Your task to perform on an android device: Empty the shopping cart on newegg.com. Add "logitech g910" to the cart on newegg.com Image 0: 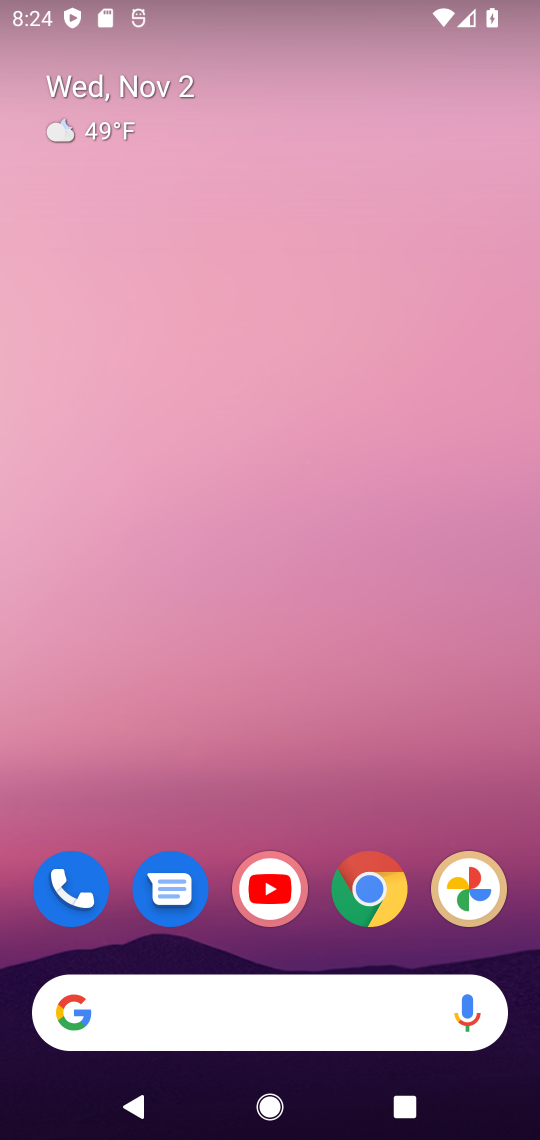
Step 0: press home button
Your task to perform on an android device: Empty the shopping cart on newegg.com. Add "logitech g910" to the cart on newegg.com Image 1: 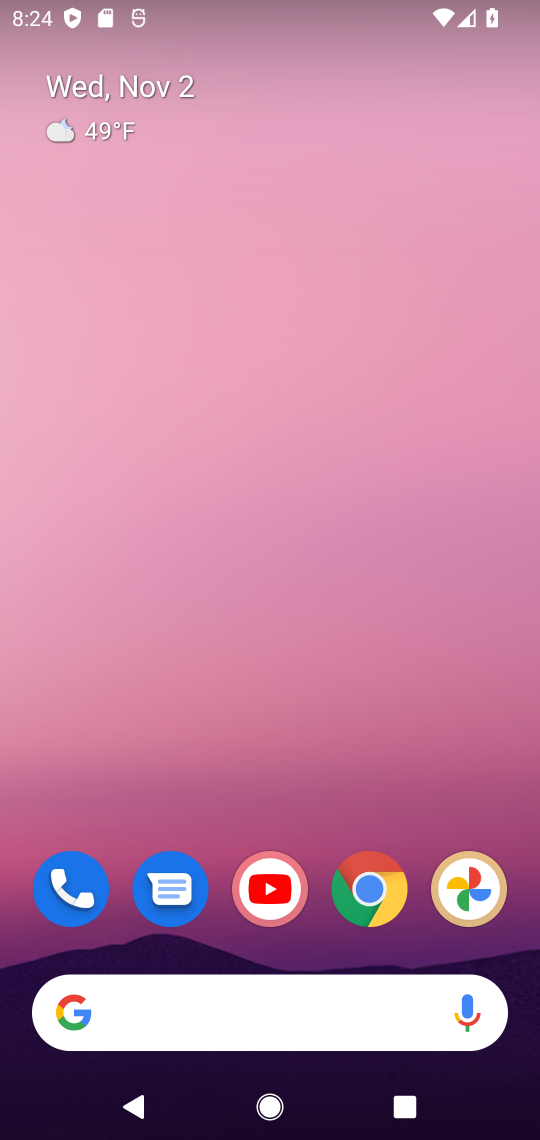
Step 1: drag from (336, 802) to (320, 11)
Your task to perform on an android device: Empty the shopping cart on newegg.com. Add "logitech g910" to the cart on newegg.com Image 2: 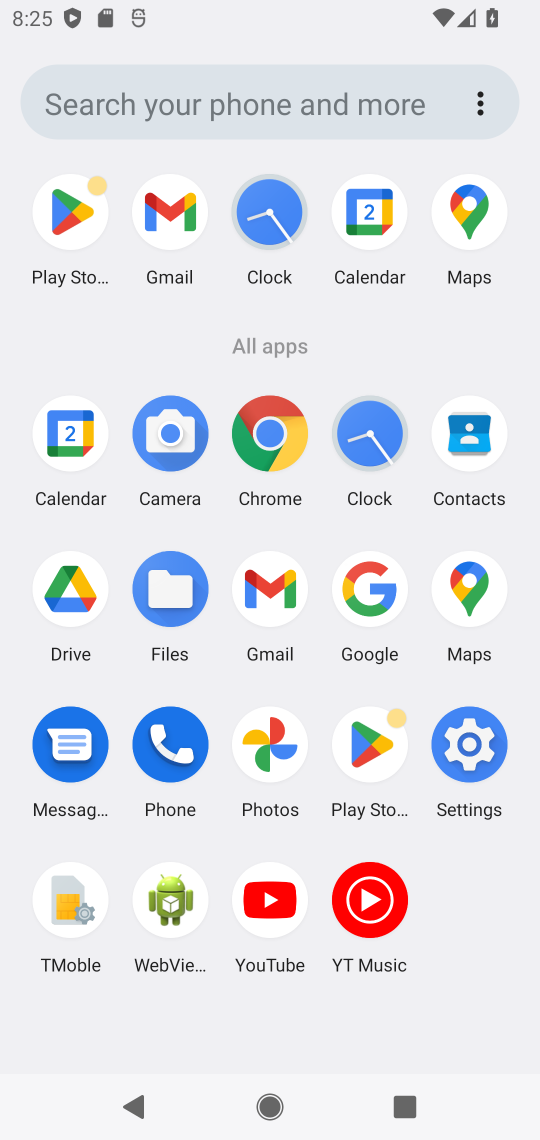
Step 2: click (273, 425)
Your task to perform on an android device: Empty the shopping cart on newegg.com. Add "logitech g910" to the cart on newegg.com Image 3: 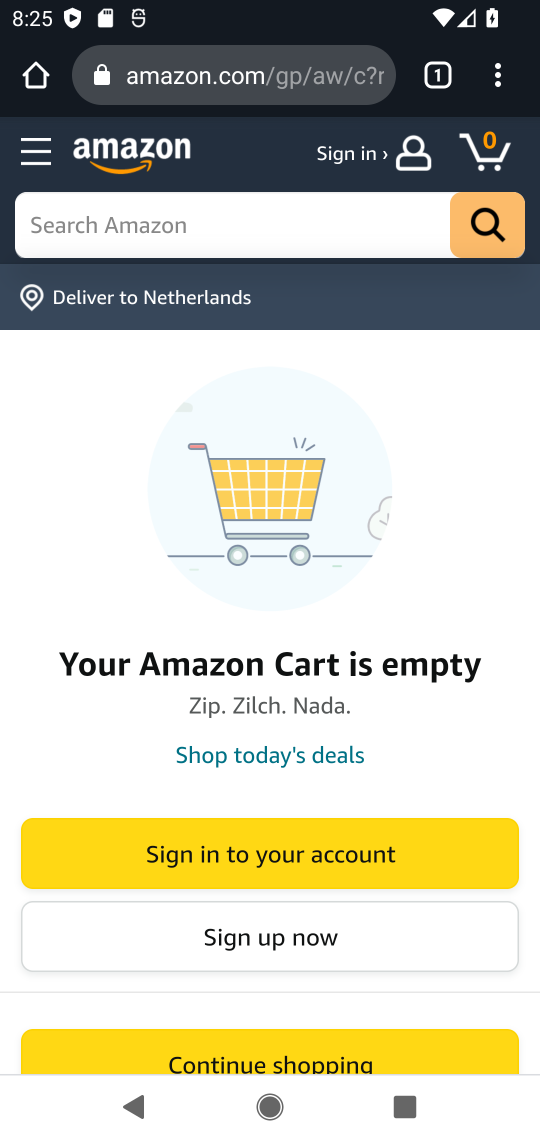
Step 3: click (230, 82)
Your task to perform on an android device: Empty the shopping cart on newegg.com. Add "logitech g910" to the cart on newegg.com Image 4: 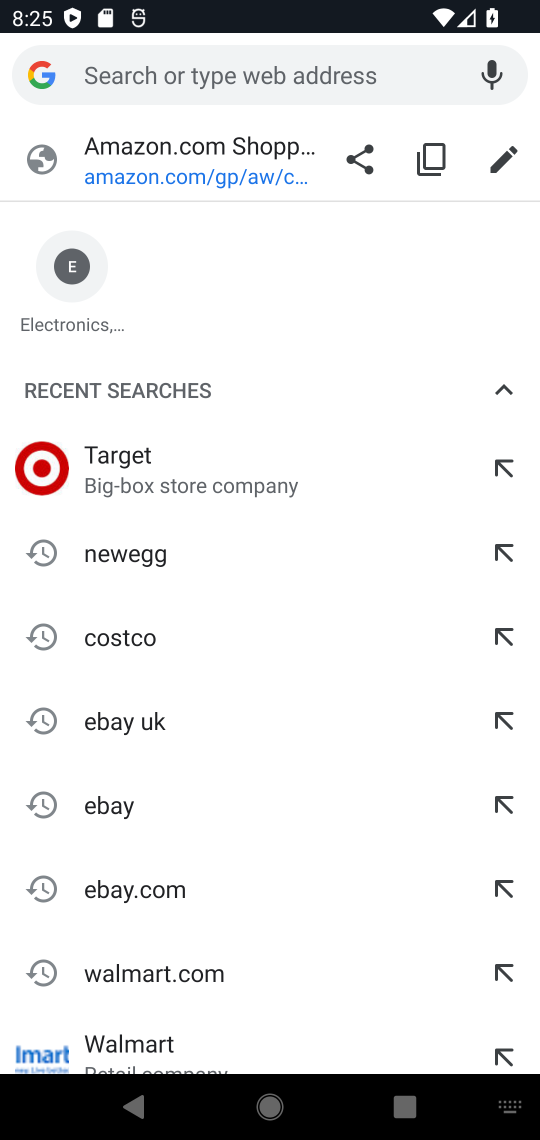
Step 4: type "newegg"
Your task to perform on an android device: Empty the shopping cart on newegg.com. Add "logitech g910" to the cart on newegg.com Image 5: 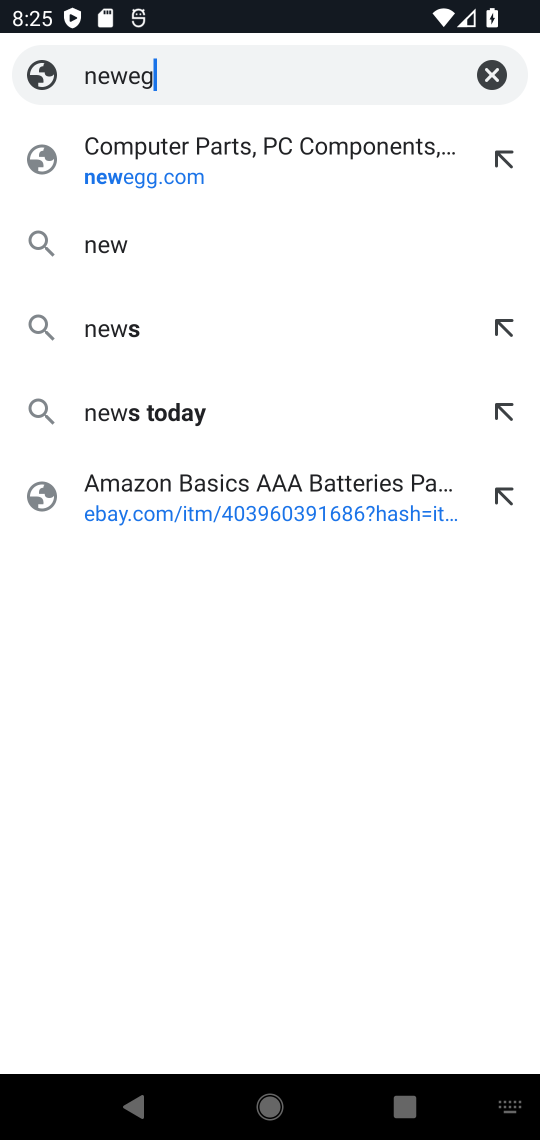
Step 5: type ""
Your task to perform on an android device: Empty the shopping cart on newegg.com. Add "logitech g910" to the cart on newegg.com Image 6: 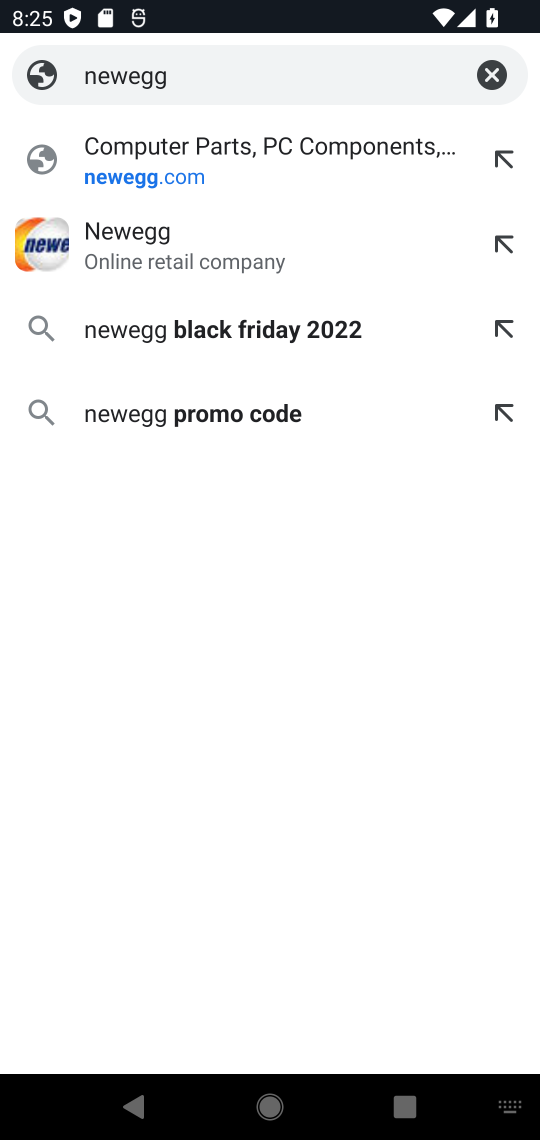
Step 6: click (193, 157)
Your task to perform on an android device: Empty the shopping cart on newegg.com. Add "logitech g910" to the cart on newegg.com Image 7: 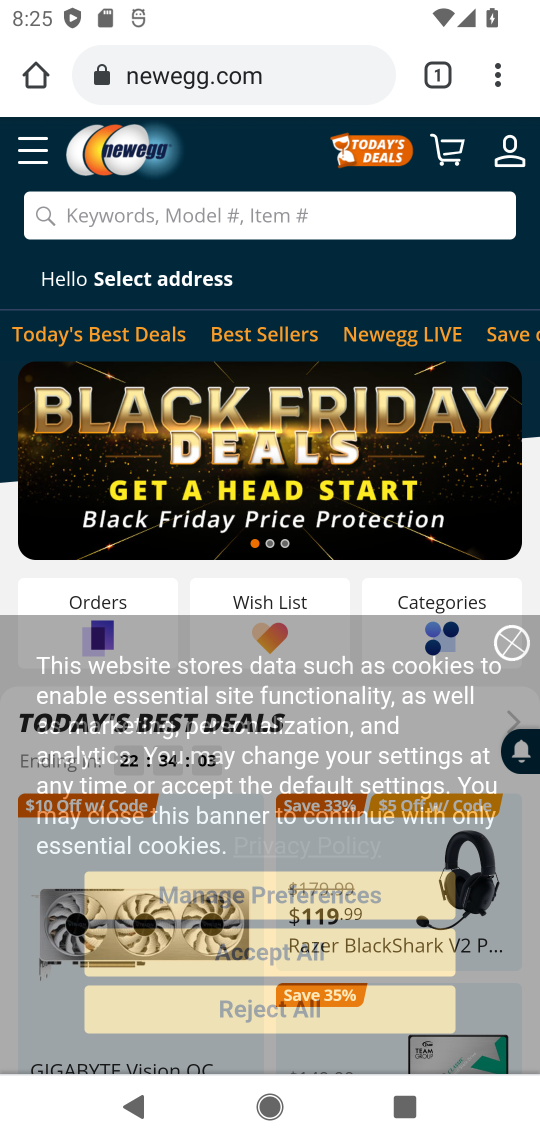
Step 7: click (149, 214)
Your task to perform on an android device: Empty the shopping cart on newegg.com. Add "logitech g910" to the cart on newegg.com Image 8: 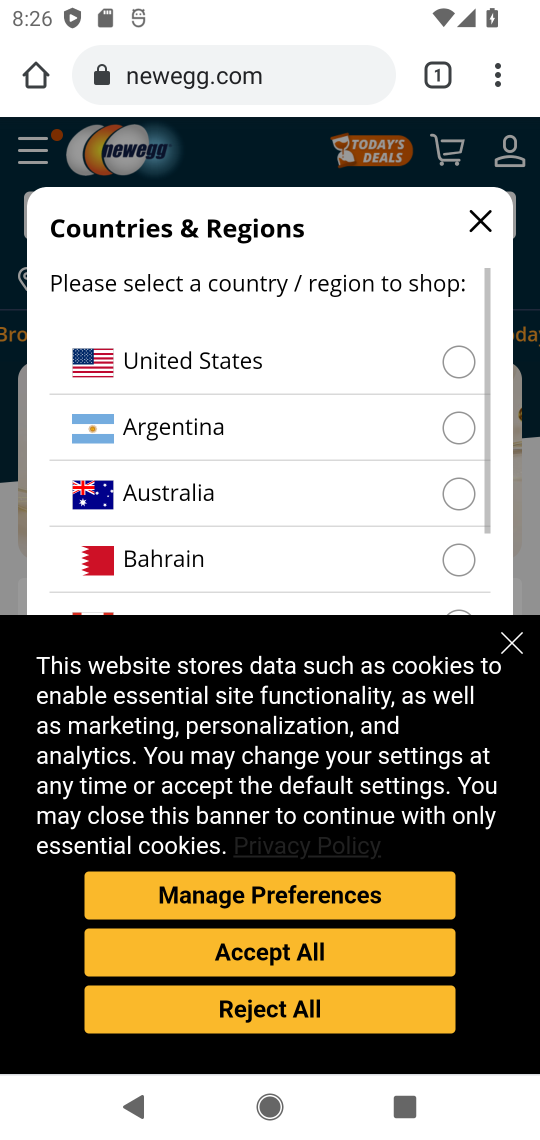
Step 8: click (458, 364)
Your task to perform on an android device: Empty the shopping cart on newegg.com. Add "logitech g910" to the cart on newegg.com Image 9: 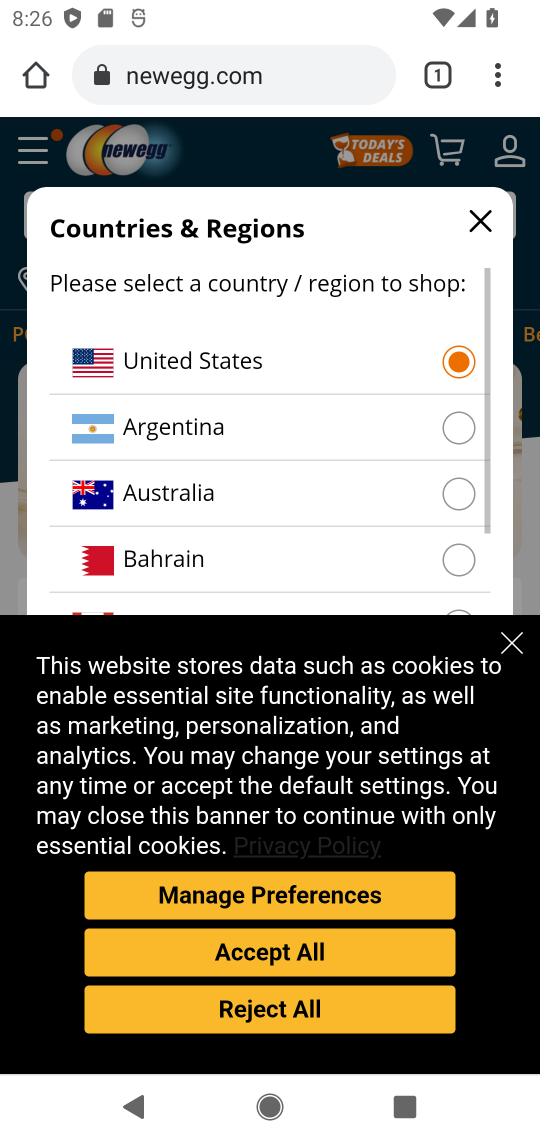
Step 9: click (294, 946)
Your task to perform on an android device: Empty the shopping cart on newegg.com. Add "logitech g910" to the cart on newegg.com Image 10: 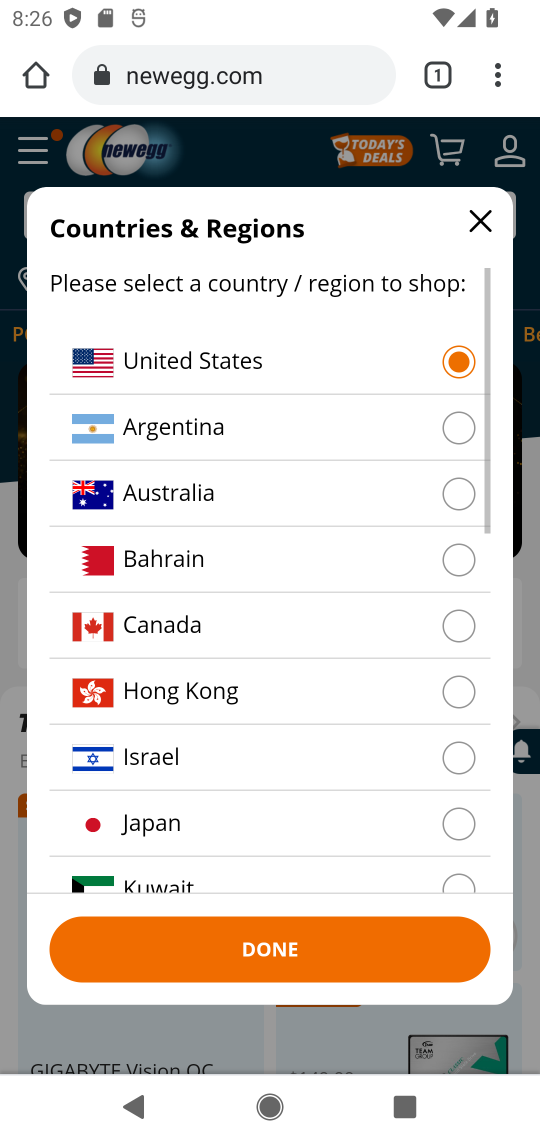
Step 10: click (279, 942)
Your task to perform on an android device: Empty the shopping cart on newegg.com. Add "logitech g910" to the cart on newegg.com Image 11: 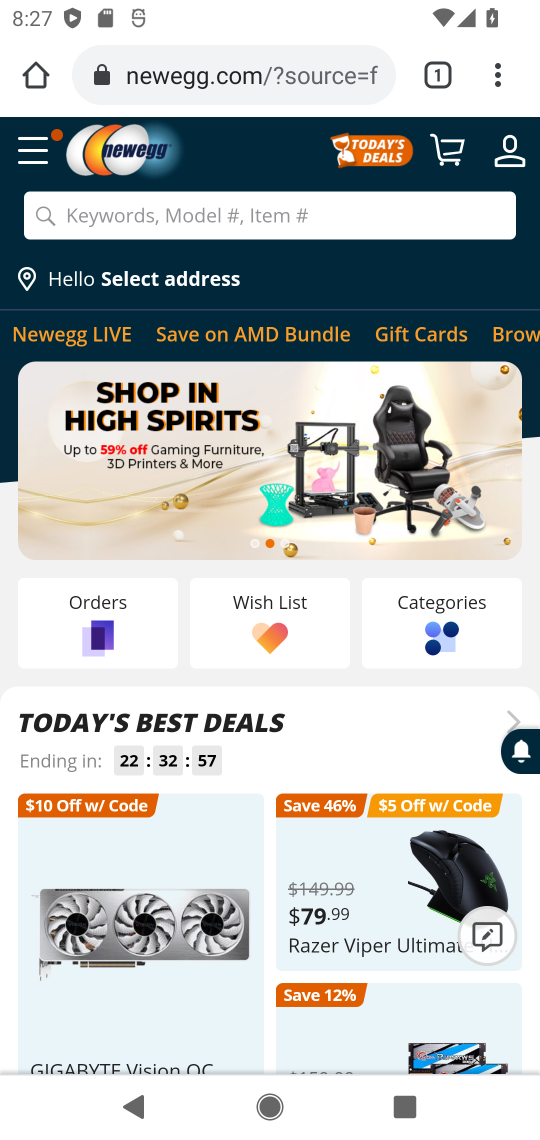
Step 11: click (207, 210)
Your task to perform on an android device: Empty the shopping cart on newegg.com. Add "logitech g910" to the cart on newegg.com Image 12: 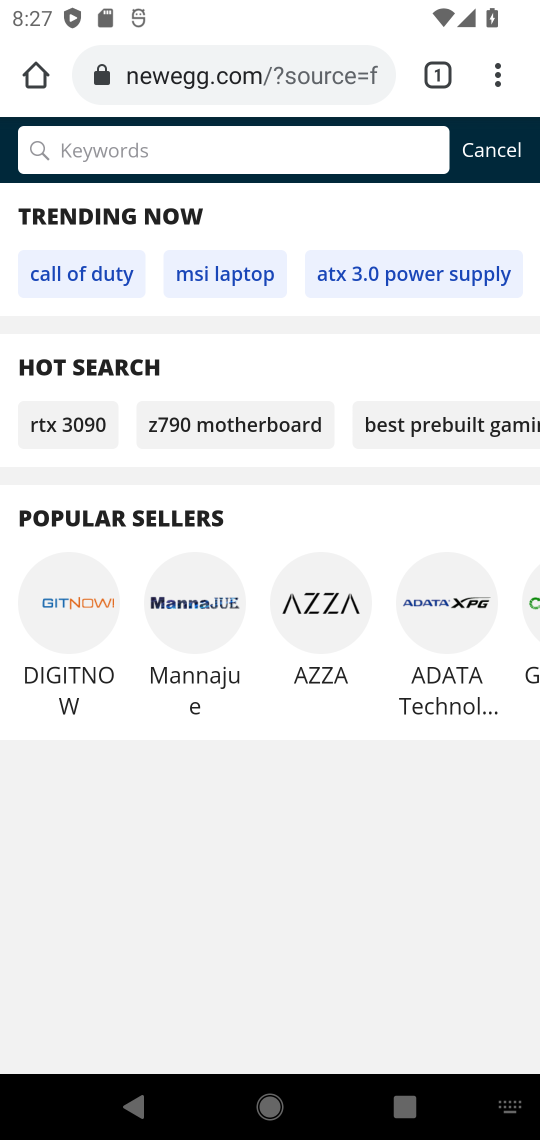
Step 12: click (156, 146)
Your task to perform on an android device: Empty the shopping cart on newegg.com. Add "logitech g910" to the cart on newegg.com Image 13: 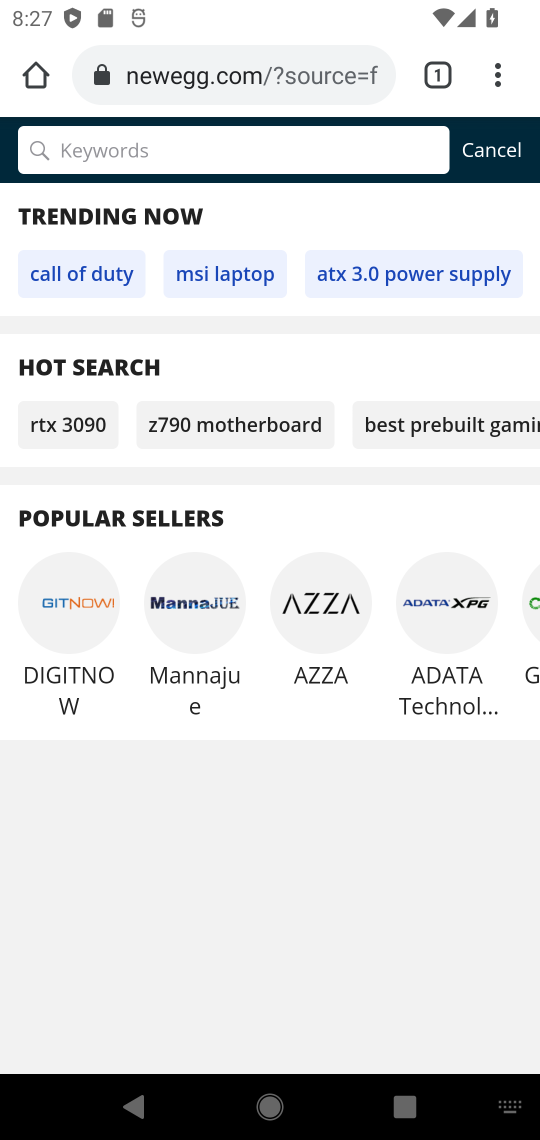
Step 13: type "logitech g910"
Your task to perform on an android device: Empty the shopping cart on newegg.com. Add "logitech g910" to the cart on newegg.com Image 14: 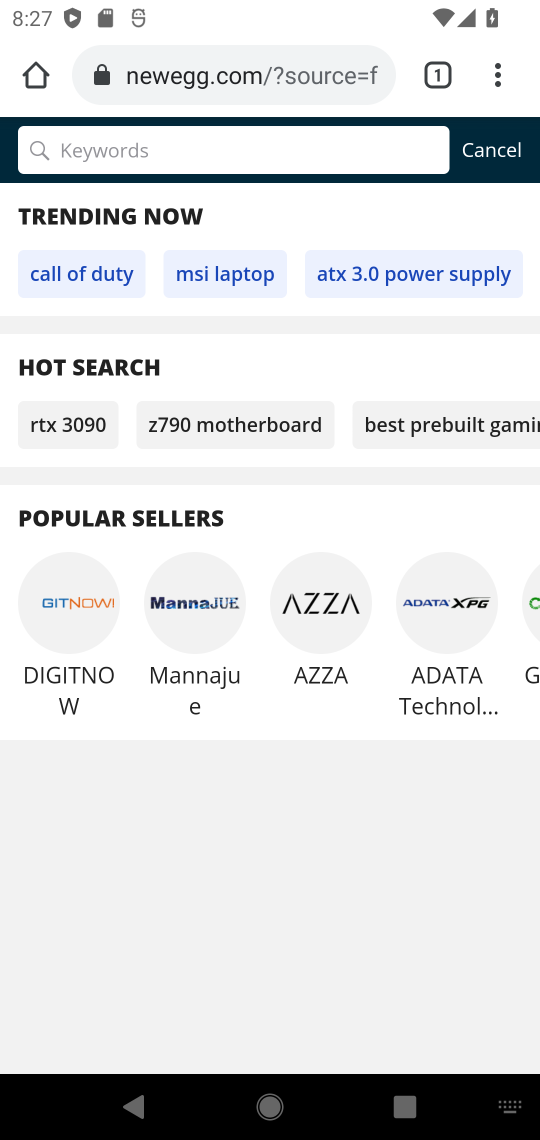
Step 14: type ""
Your task to perform on an android device: Empty the shopping cart on newegg.com. Add "logitech g910" to the cart on newegg.com Image 15: 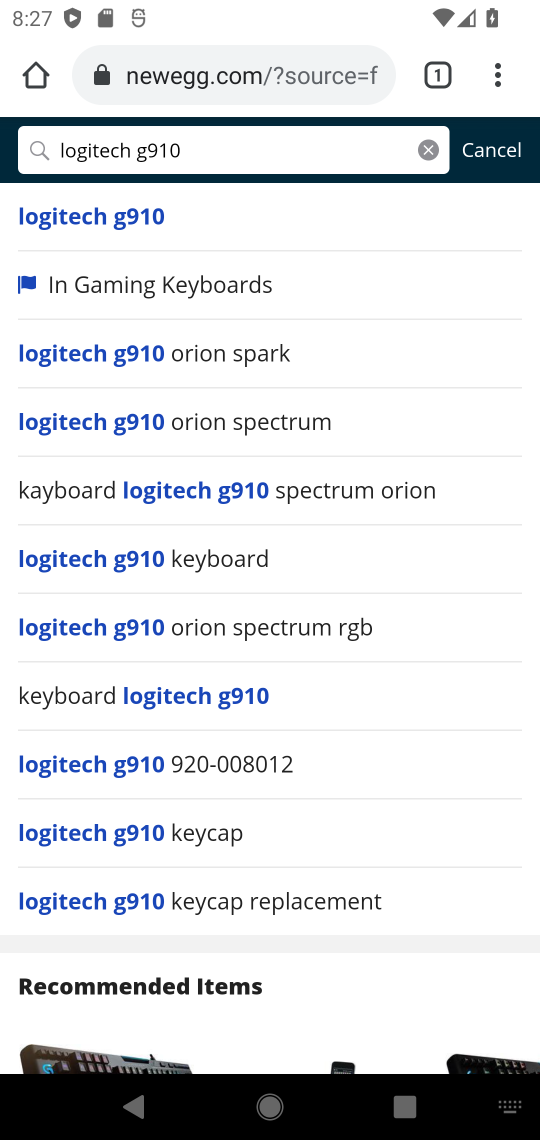
Step 15: click (158, 219)
Your task to perform on an android device: Empty the shopping cart on newegg.com. Add "logitech g910" to the cart on newegg.com Image 16: 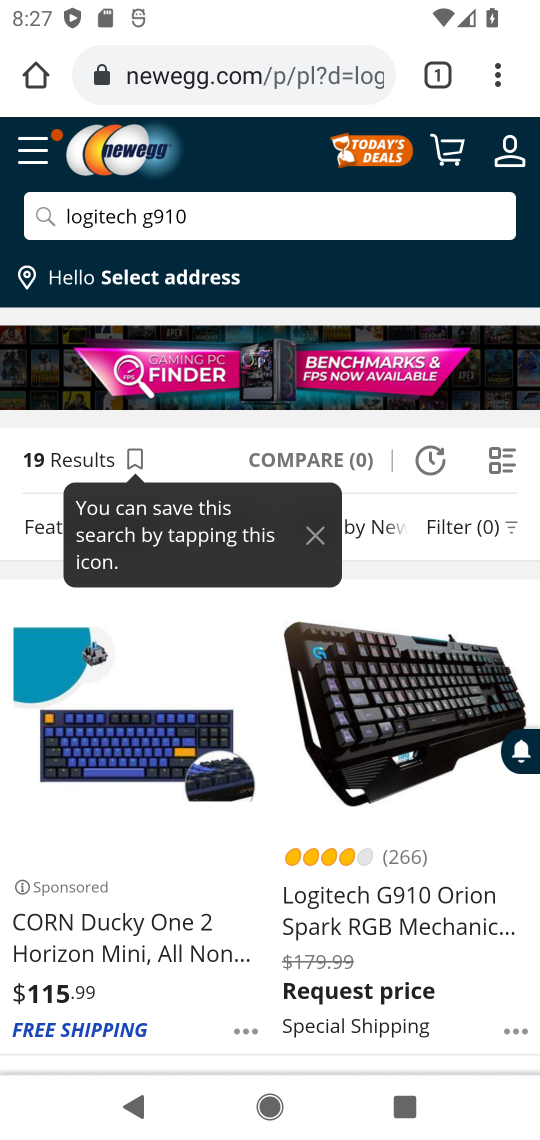
Step 16: click (384, 761)
Your task to perform on an android device: Empty the shopping cart on newegg.com. Add "logitech g910" to the cart on newegg.com Image 17: 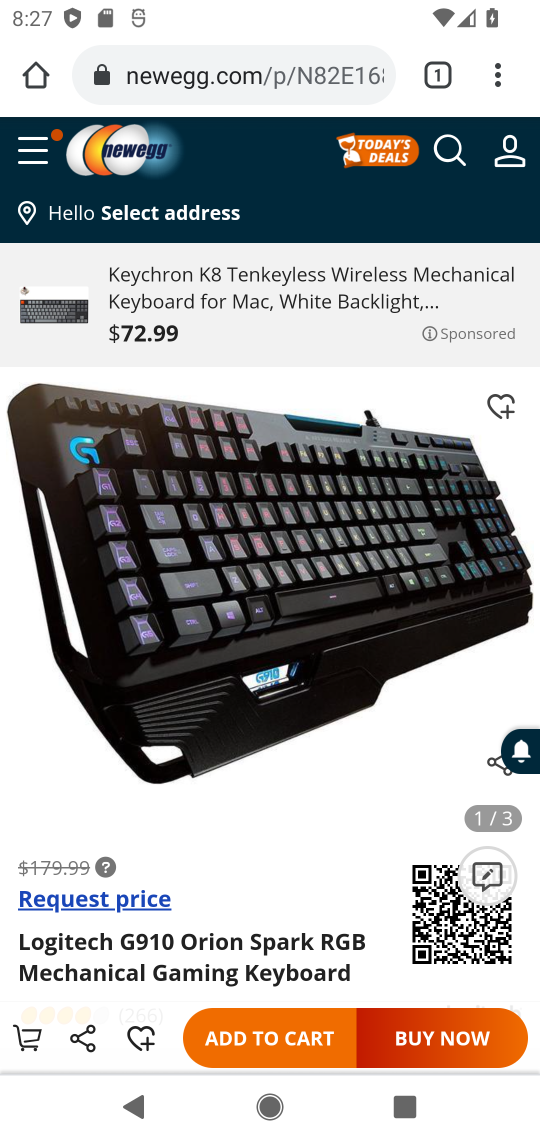
Step 17: drag from (253, 896) to (260, 339)
Your task to perform on an android device: Empty the shopping cart on newegg.com. Add "logitech g910" to the cart on newegg.com Image 18: 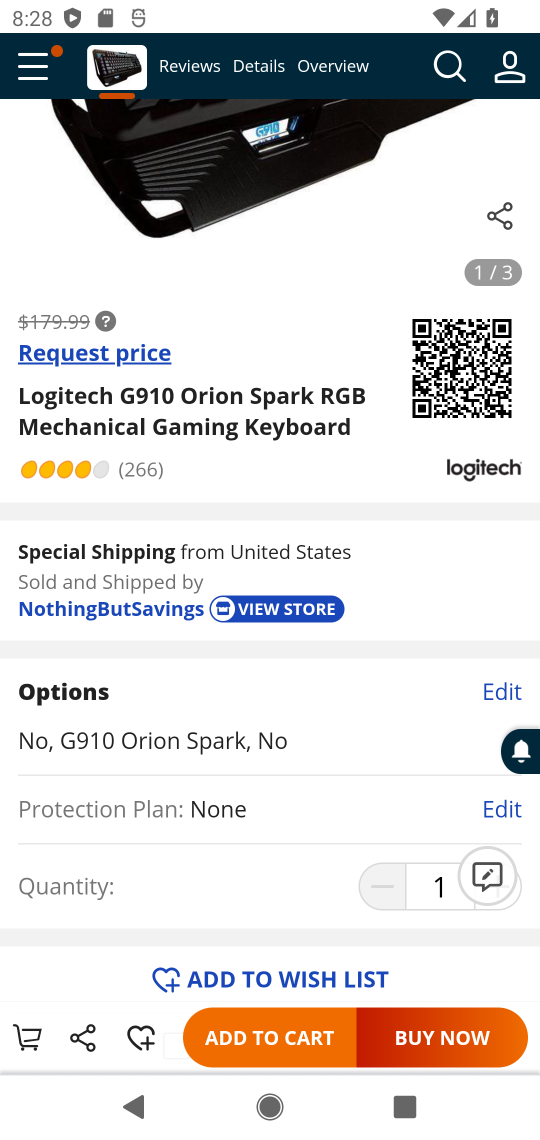
Step 18: drag from (307, 650) to (374, 128)
Your task to perform on an android device: Empty the shopping cart on newegg.com. Add "logitech g910" to the cart on newegg.com Image 19: 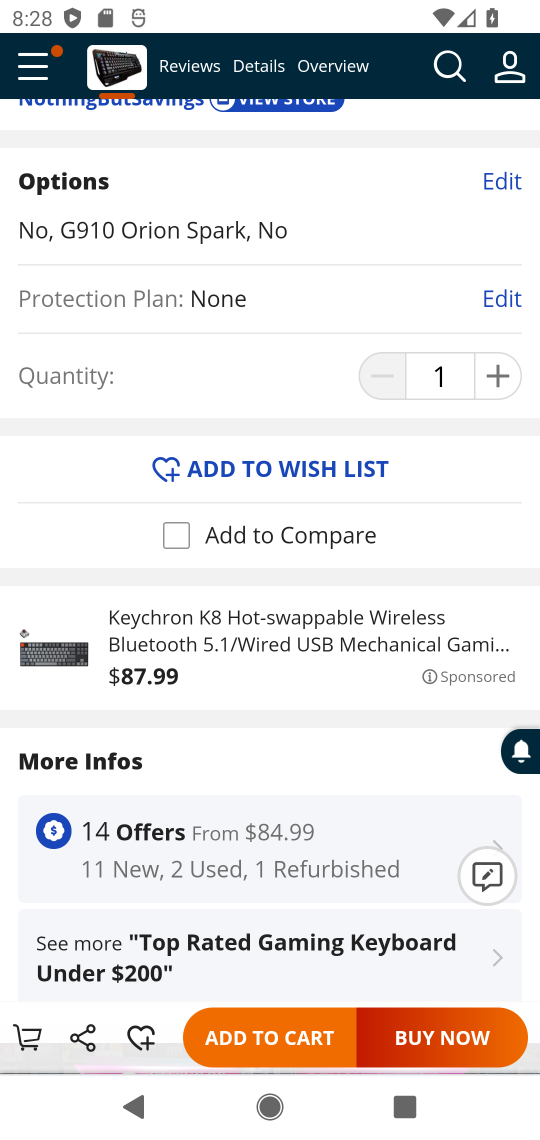
Step 19: click (290, 1027)
Your task to perform on an android device: Empty the shopping cart on newegg.com. Add "logitech g910" to the cart on newegg.com Image 20: 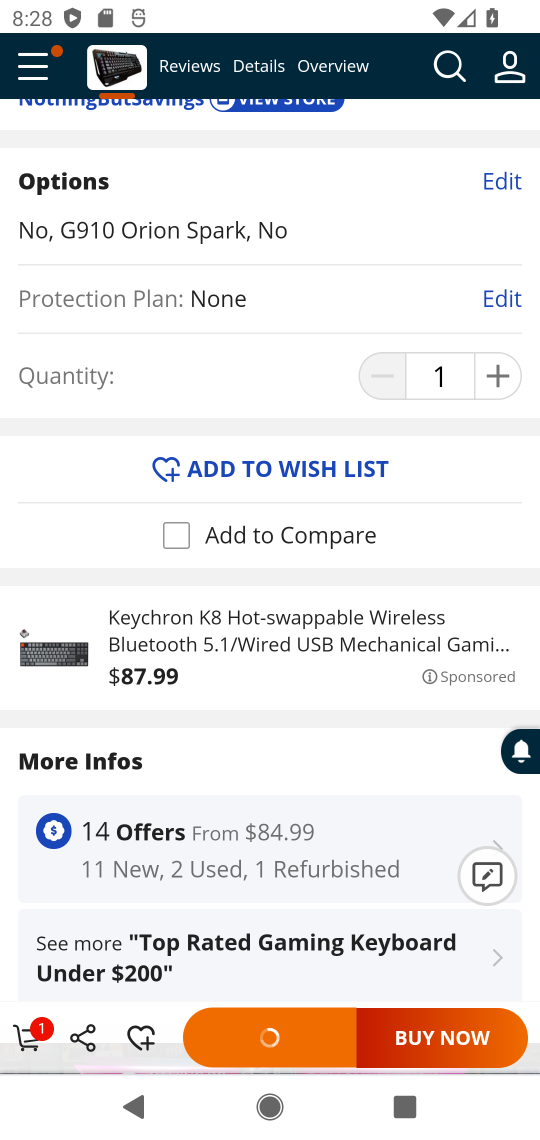
Step 20: click (25, 1042)
Your task to perform on an android device: Empty the shopping cart on newegg.com. Add "logitech g910" to the cart on newegg.com Image 21: 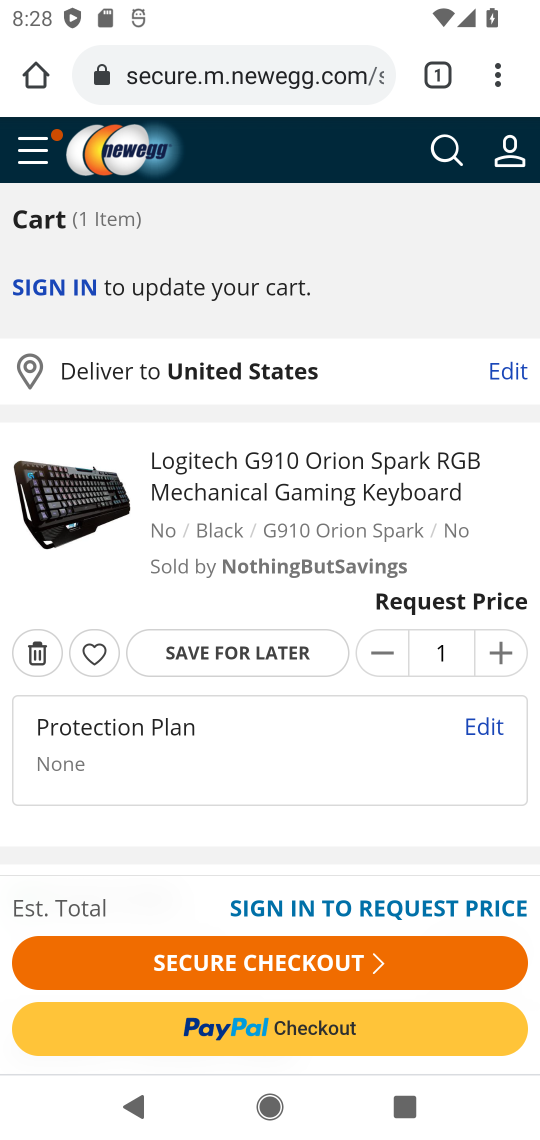
Step 21: click (282, 960)
Your task to perform on an android device: Empty the shopping cart on newegg.com. Add "logitech g910" to the cart on newegg.com Image 22: 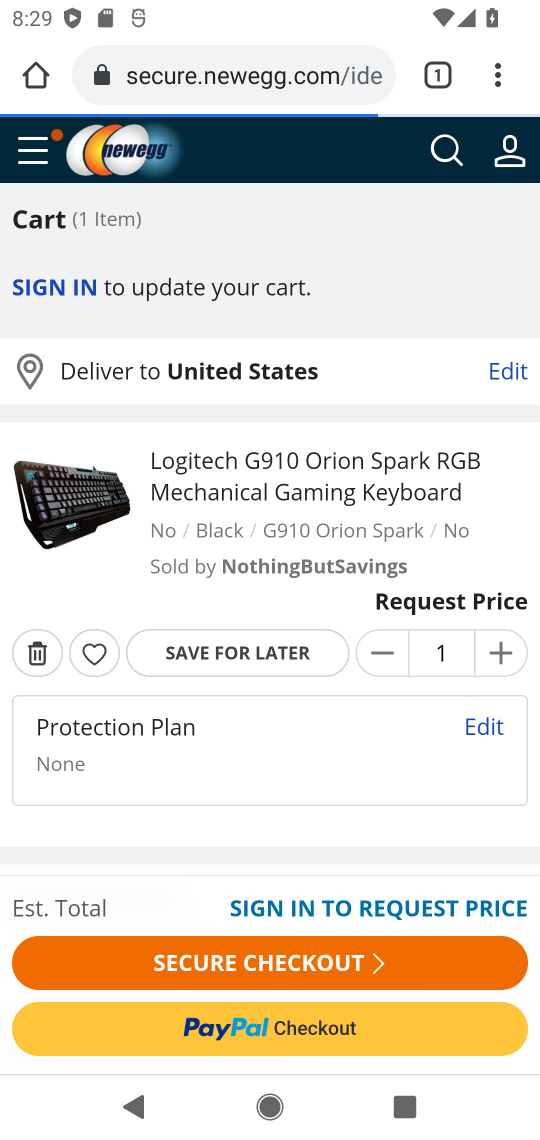
Step 22: task complete